Your task to perform on an android device: change the clock display to digital Image 0: 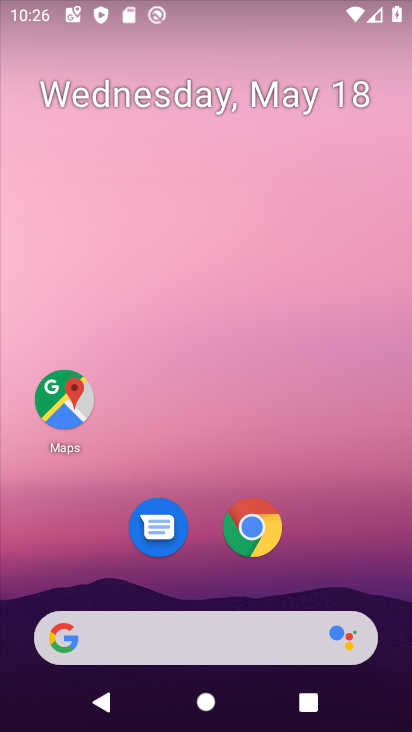
Step 0: drag from (310, 555) to (305, 100)
Your task to perform on an android device: change the clock display to digital Image 1: 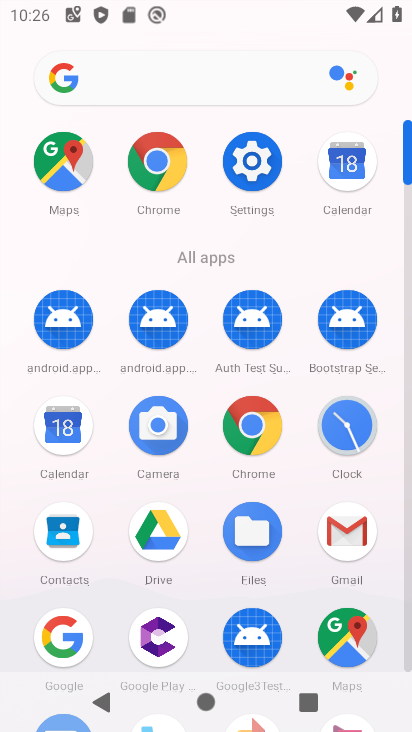
Step 1: click (358, 438)
Your task to perform on an android device: change the clock display to digital Image 2: 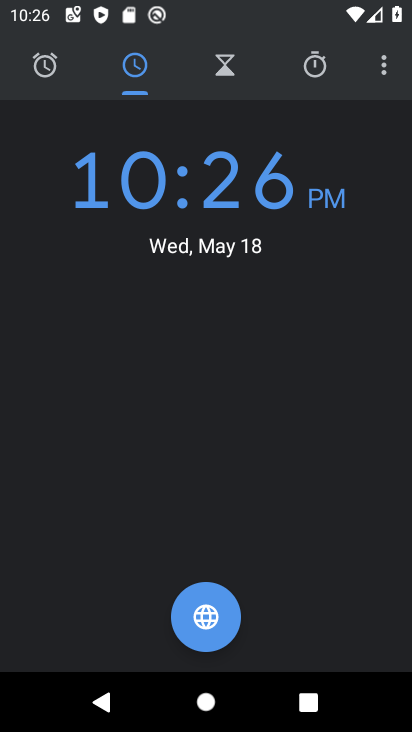
Step 2: click (378, 71)
Your task to perform on an android device: change the clock display to digital Image 3: 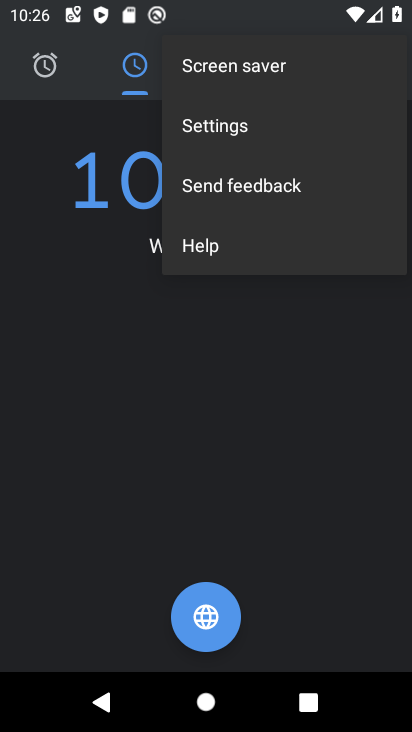
Step 3: click (271, 145)
Your task to perform on an android device: change the clock display to digital Image 4: 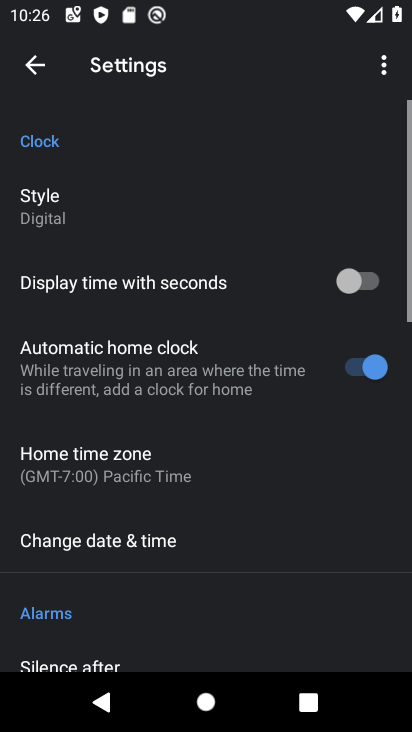
Step 4: click (85, 175)
Your task to perform on an android device: change the clock display to digital Image 5: 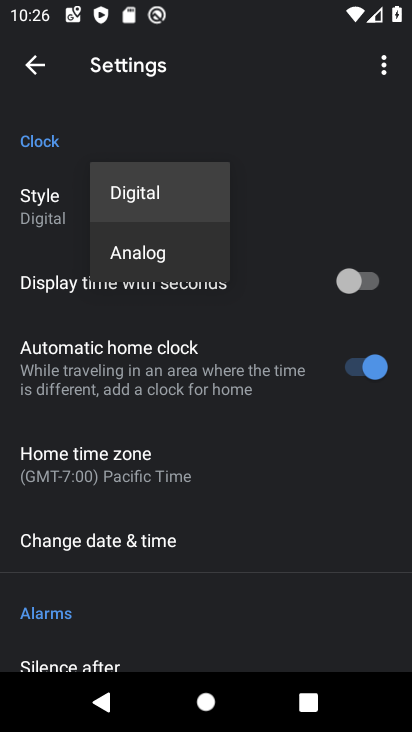
Step 5: task complete